Your task to perform on an android device: install app "Microsoft Excel" Image 0: 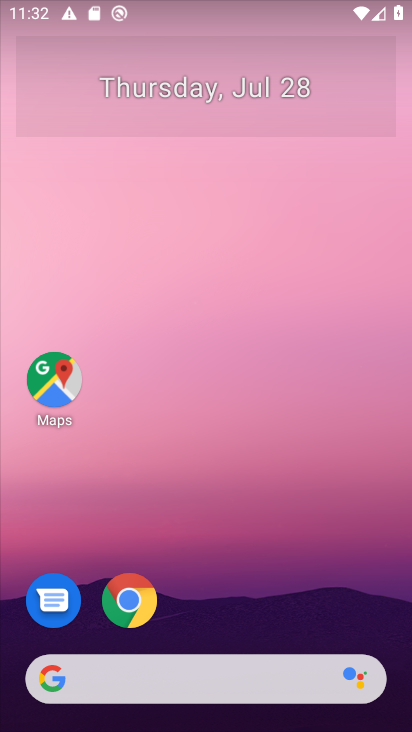
Step 0: drag from (170, 704) to (201, 33)
Your task to perform on an android device: install app "Microsoft Excel" Image 1: 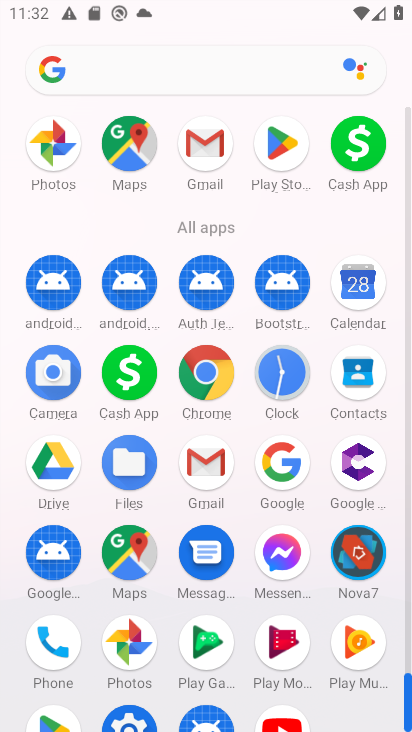
Step 1: click (292, 149)
Your task to perform on an android device: install app "Microsoft Excel" Image 2: 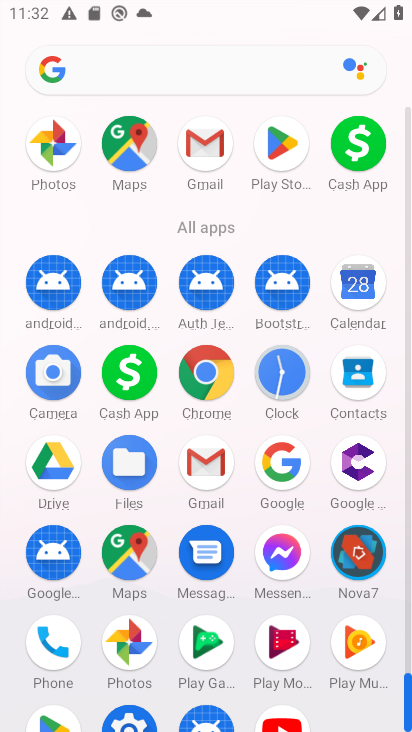
Step 2: click (292, 149)
Your task to perform on an android device: install app "Microsoft Excel" Image 3: 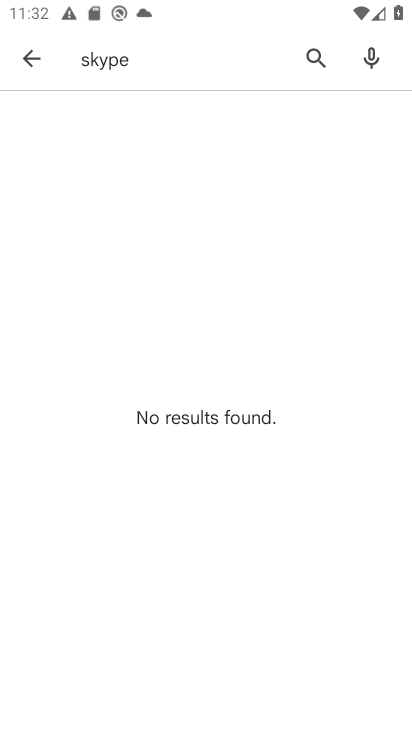
Step 3: click (315, 57)
Your task to perform on an android device: install app "Microsoft Excel" Image 4: 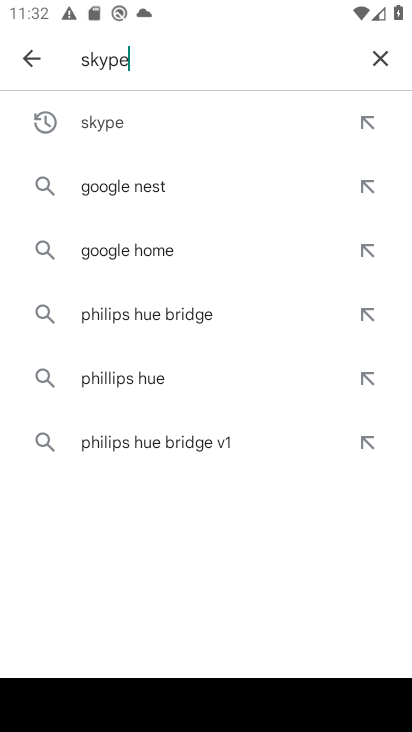
Step 4: click (386, 56)
Your task to perform on an android device: install app "Microsoft Excel" Image 5: 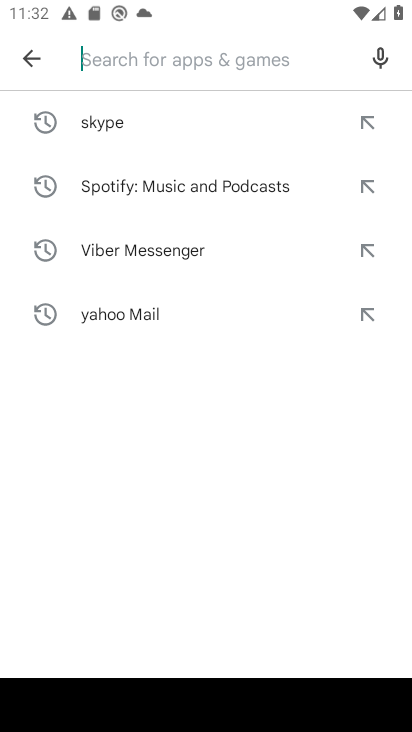
Step 5: type "Microsoft Excel"
Your task to perform on an android device: install app "Microsoft Excel" Image 6: 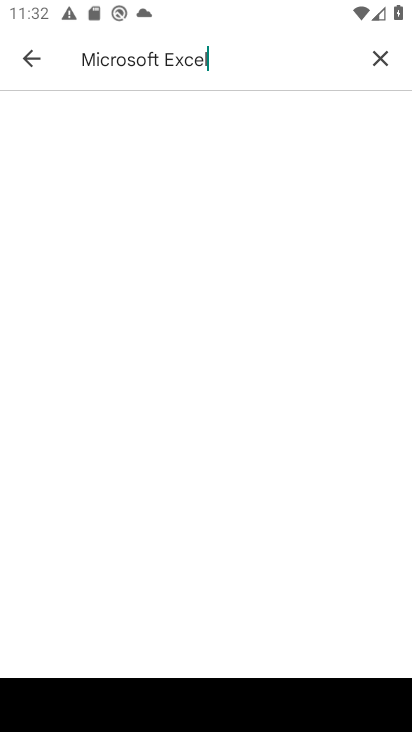
Step 6: press enter
Your task to perform on an android device: install app "Microsoft Excel" Image 7: 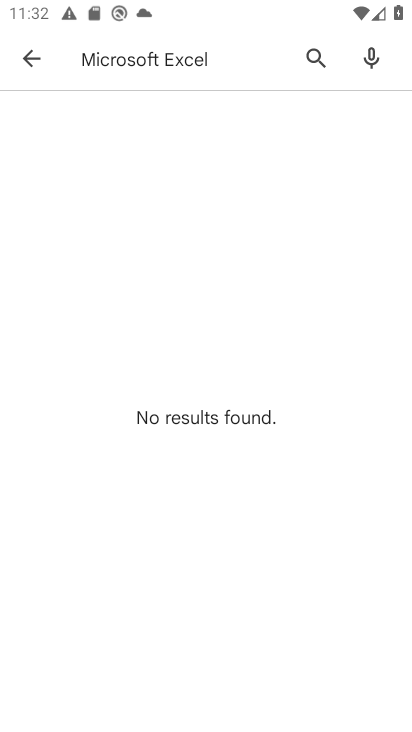
Step 7: task complete